Your task to perform on an android device: turn off improve location accuracy Image 0: 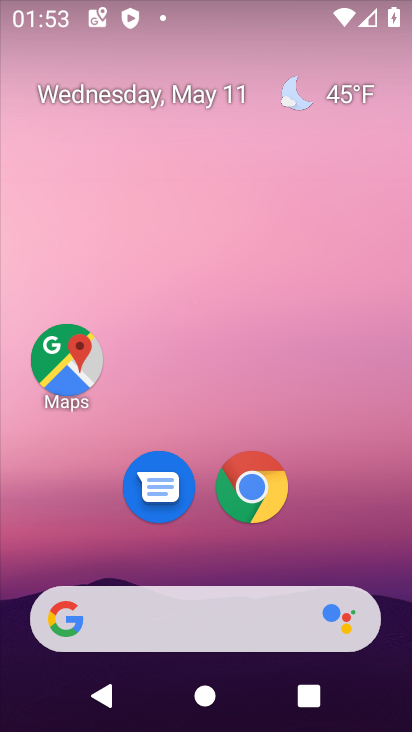
Step 0: drag from (165, 576) to (271, 87)
Your task to perform on an android device: turn off improve location accuracy Image 1: 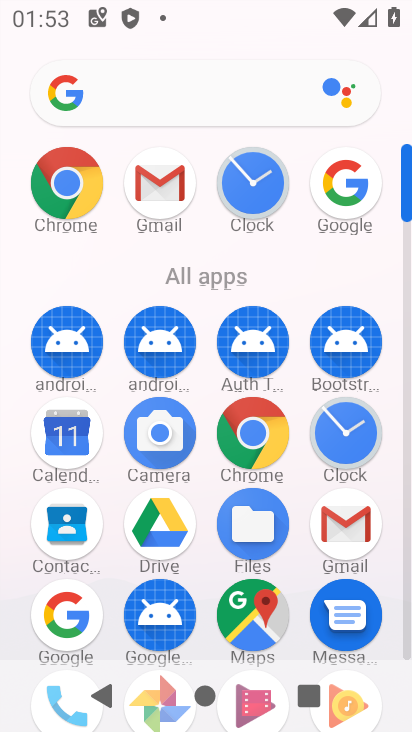
Step 1: drag from (145, 637) to (222, 425)
Your task to perform on an android device: turn off improve location accuracy Image 2: 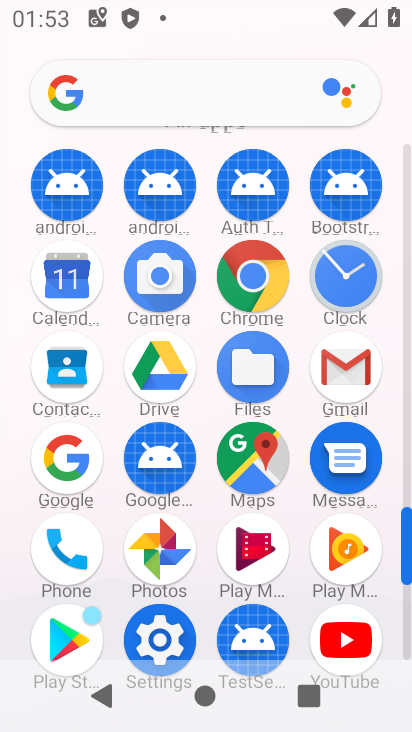
Step 2: click (156, 665)
Your task to perform on an android device: turn off improve location accuracy Image 3: 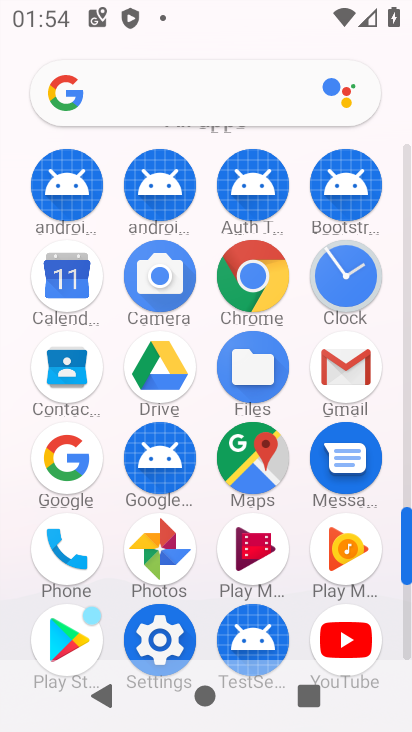
Step 3: click (156, 634)
Your task to perform on an android device: turn off improve location accuracy Image 4: 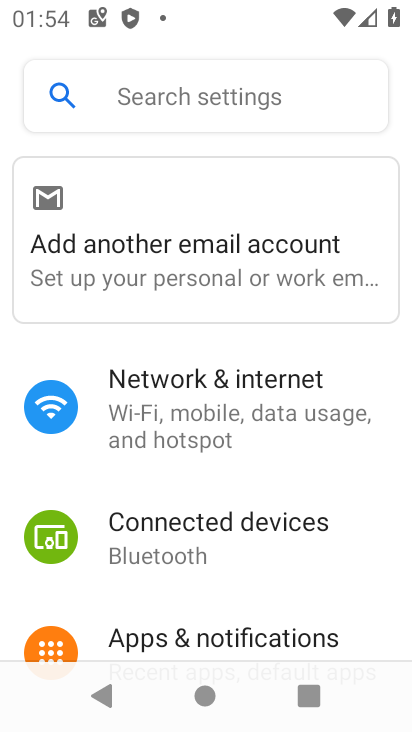
Step 4: drag from (162, 605) to (275, 249)
Your task to perform on an android device: turn off improve location accuracy Image 5: 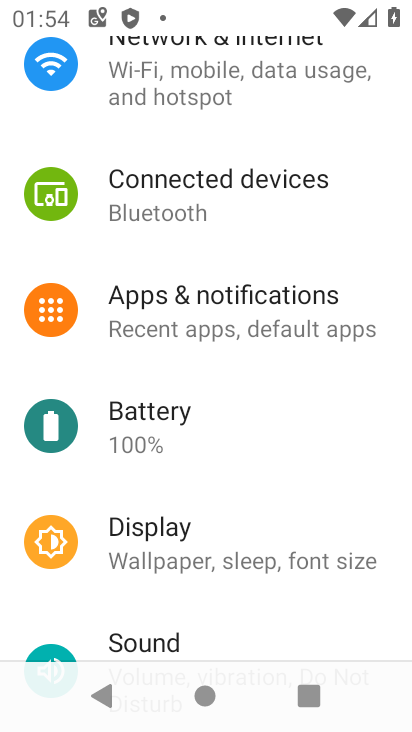
Step 5: drag from (197, 570) to (308, 161)
Your task to perform on an android device: turn off improve location accuracy Image 6: 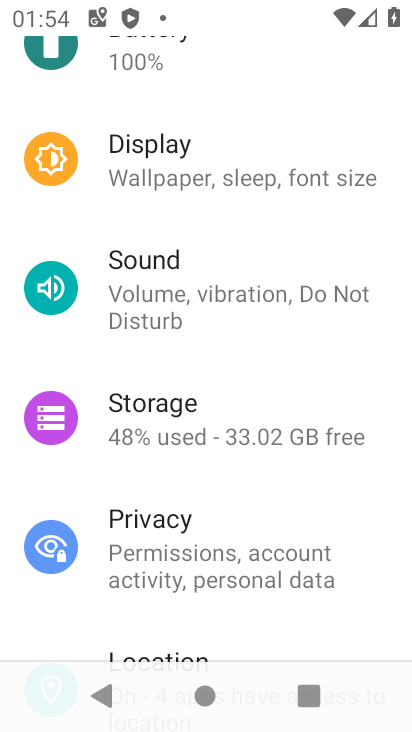
Step 6: drag from (168, 601) to (256, 314)
Your task to perform on an android device: turn off improve location accuracy Image 7: 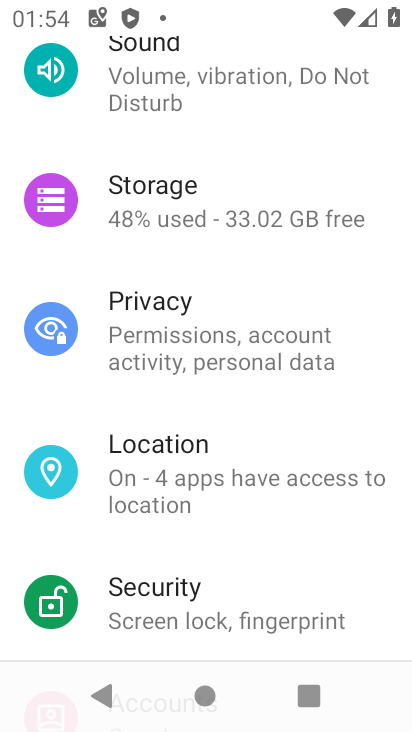
Step 7: click (190, 498)
Your task to perform on an android device: turn off improve location accuracy Image 8: 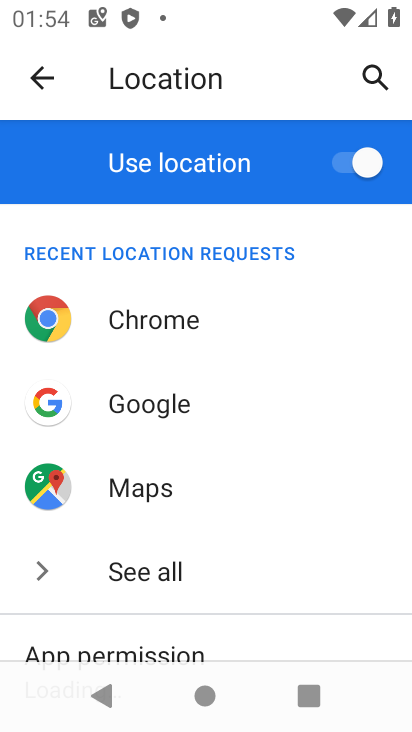
Step 8: drag from (190, 624) to (278, 299)
Your task to perform on an android device: turn off improve location accuracy Image 9: 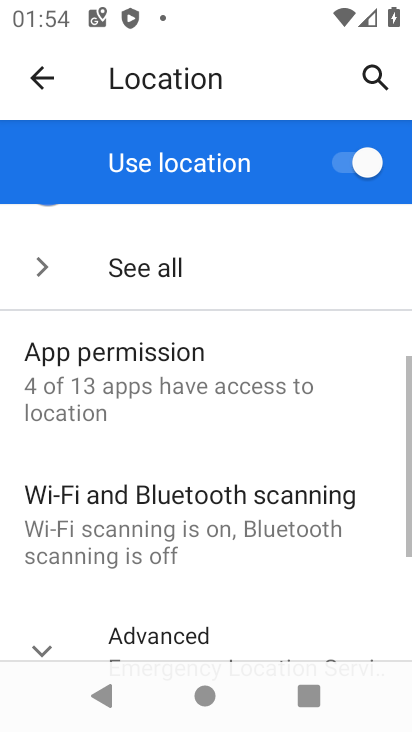
Step 9: click (180, 626)
Your task to perform on an android device: turn off improve location accuracy Image 10: 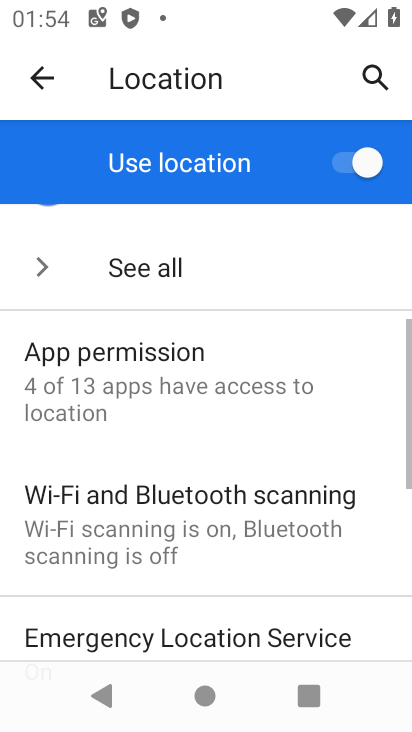
Step 10: drag from (172, 636) to (259, 286)
Your task to perform on an android device: turn off improve location accuracy Image 11: 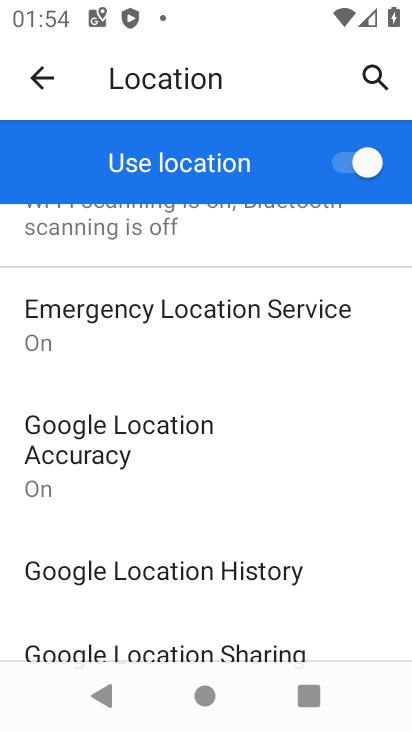
Step 11: drag from (235, 627) to (322, 327)
Your task to perform on an android device: turn off improve location accuracy Image 12: 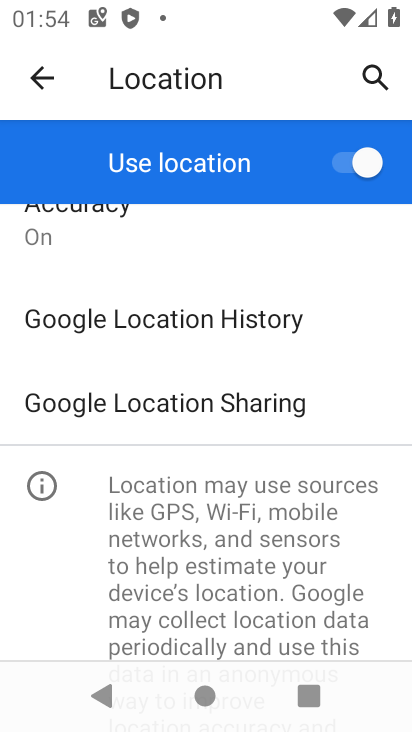
Step 12: drag from (241, 600) to (320, 307)
Your task to perform on an android device: turn off improve location accuracy Image 13: 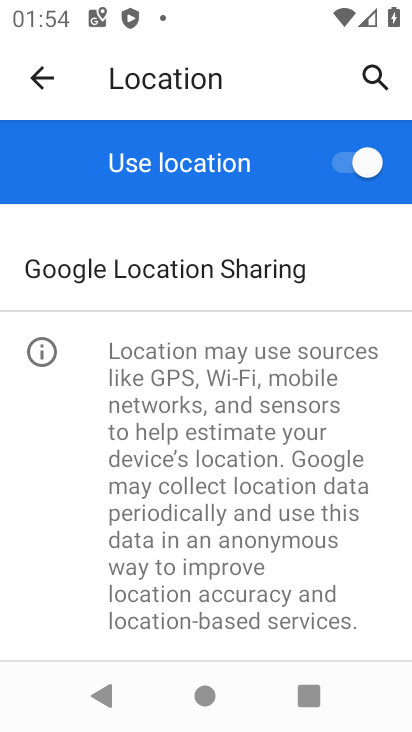
Step 13: drag from (199, 647) to (322, 266)
Your task to perform on an android device: turn off improve location accuracy Image 14: 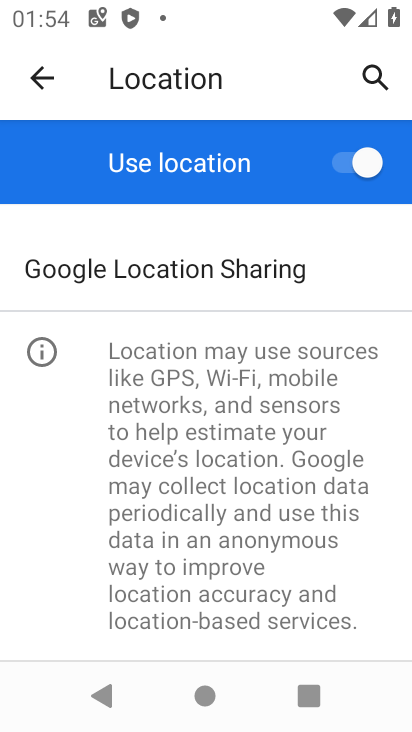
Step 14: drag from (235, 615) to (348, 218)
Your task to perform on an android device: turn off improve location accuracy Image 15: 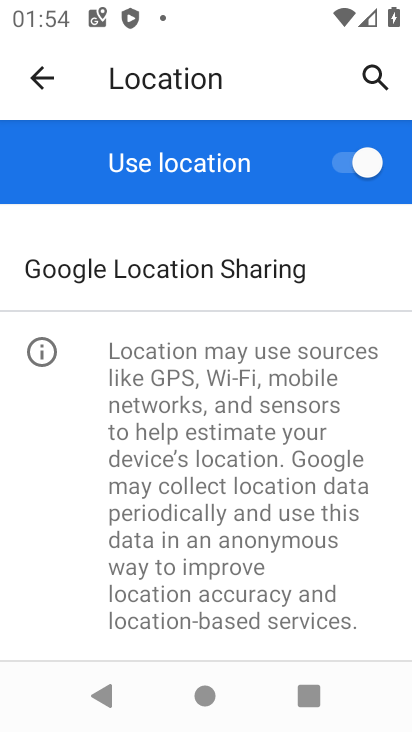
Step 15: drag from (287, 310) to (274, 670)
Your task to perform on an android device: turn off improve location accuracy Image 16: 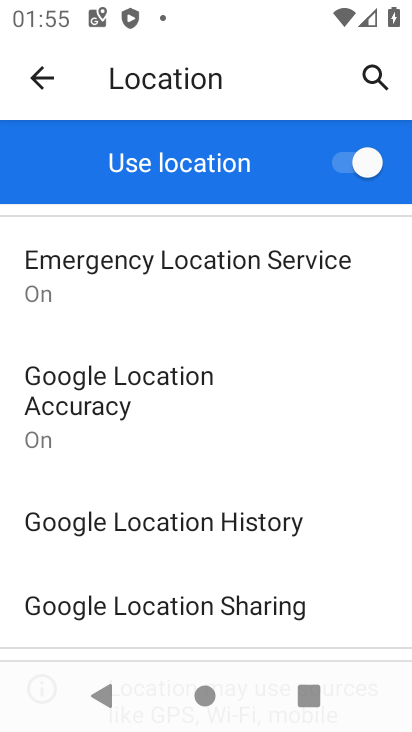
Step 16: click (229, 397)
Your task to perform on an android device: turn off improve location accuracy Image 17: 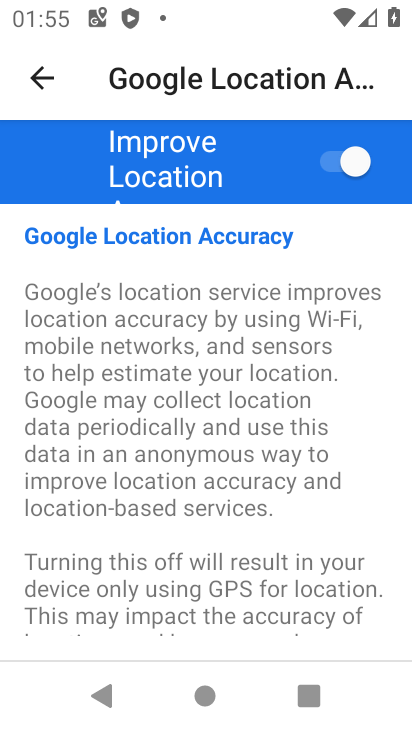
Step 17: click (323, 154)
Your task to perform on an android device: turn off improve location accuracy Image 18: 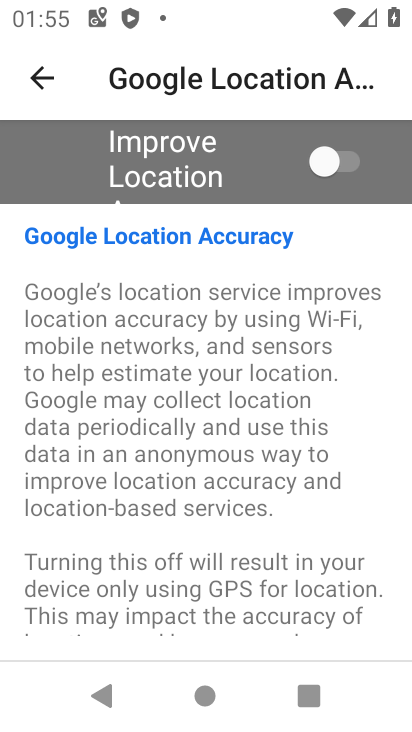
Step 18: task complete